Your task to perform on an android device: turn off sleep mode Image 0: 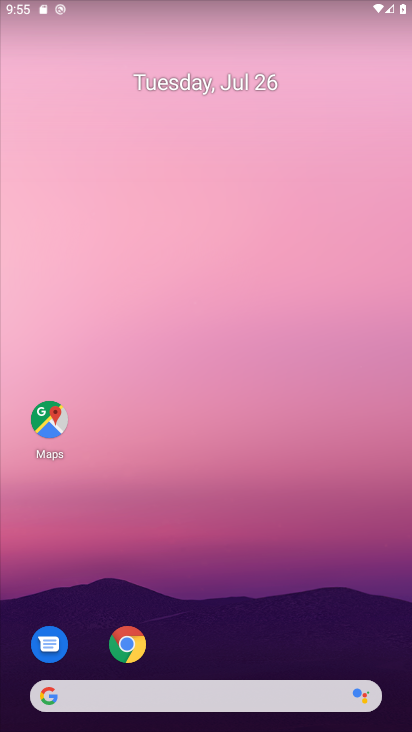
Step 0: drag from (204, 647) to (263, 293)
Your task to perform on an android device: turn off sleep mode Image 1: 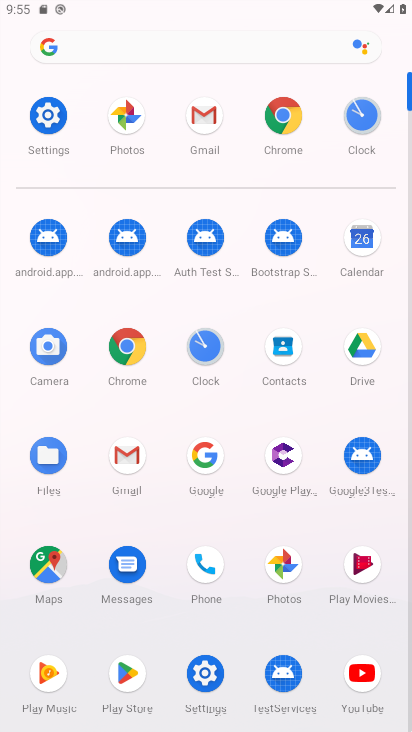
Step 1: click (197, 681)
Your task to perform on an android device: turn off sleep mode Image 2: 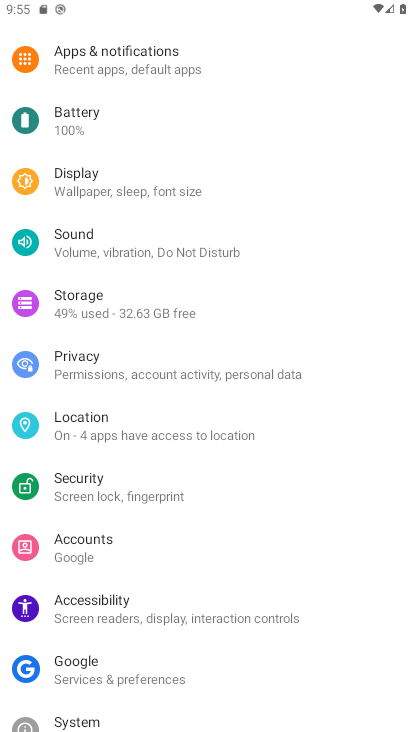
Step 2: drag from (217, 117) to (230, 630)
Your task to perform on an android device: turn off sleep mode Image 3: 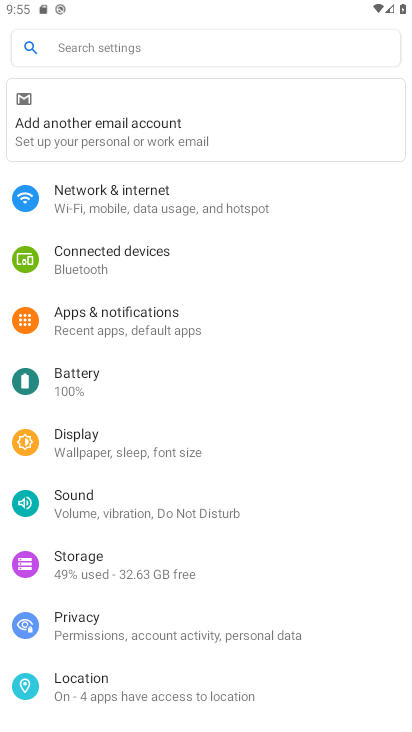
Step 3: click (172, 55)
Your task to perform on an android device: turn off sleep mode Image 4: 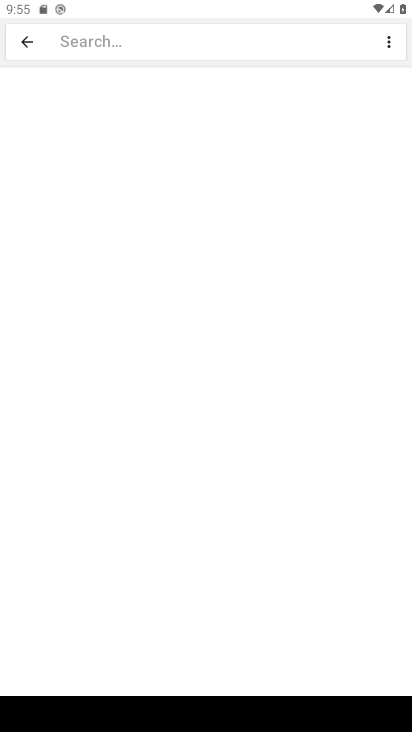
Step 4: type "sleep mode"
Your task to perform on an android device: turn off sleep mode Image 5: 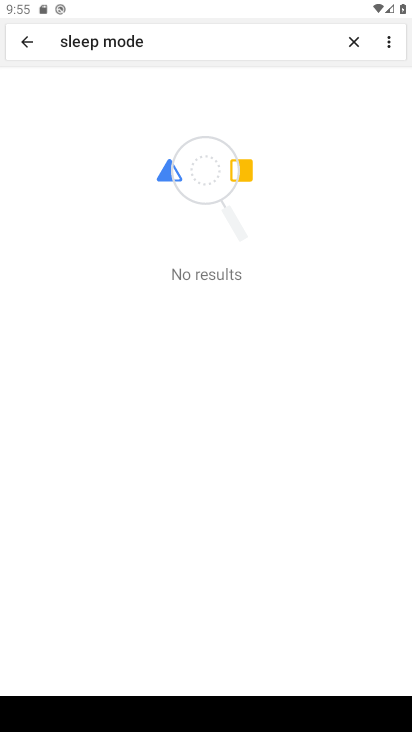
Step 5: task complete